Your task to perform on an android device: Do I have any events today? Image 0: 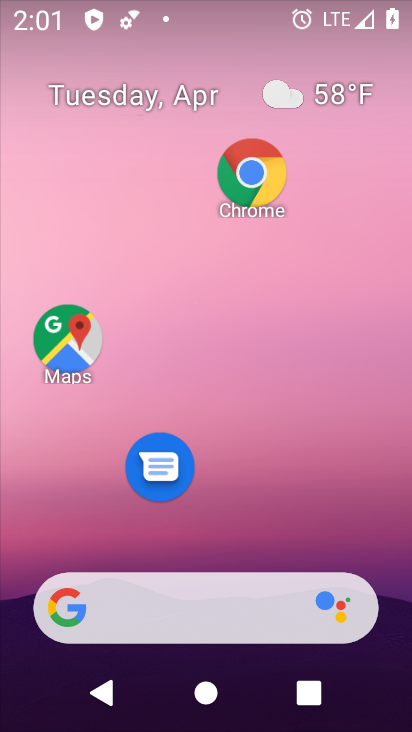
Step 0: drag from (265, 563) to (295, 115)
Your task to perform on an android device: Do I have any events today? Image 1: 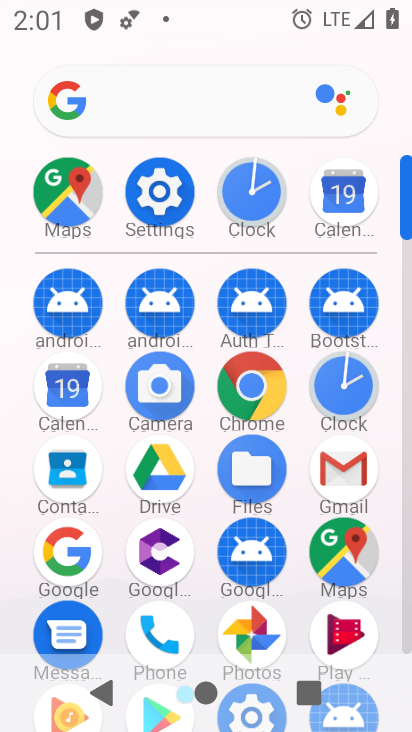
Step 1: click (57, 406)
Your task to perform on an android device: Do I have any events today? Image 2: 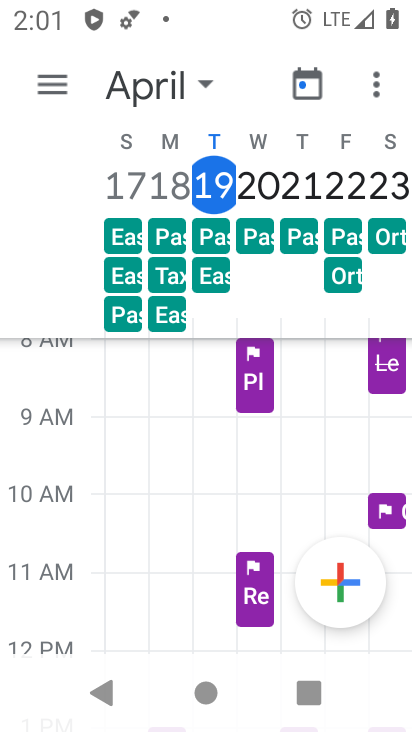
Step 2: click (197, 187)
Your task to perform on an android device: Do I have any events today? Image 3: 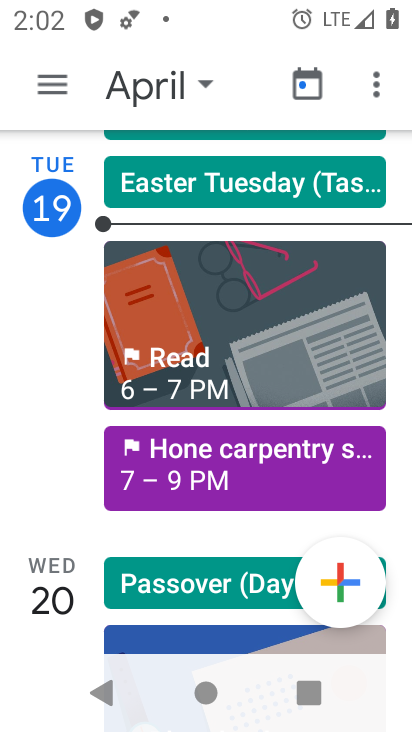
Step 3: task complete